Your task to perform on an android device: Open the web browser Image 0: 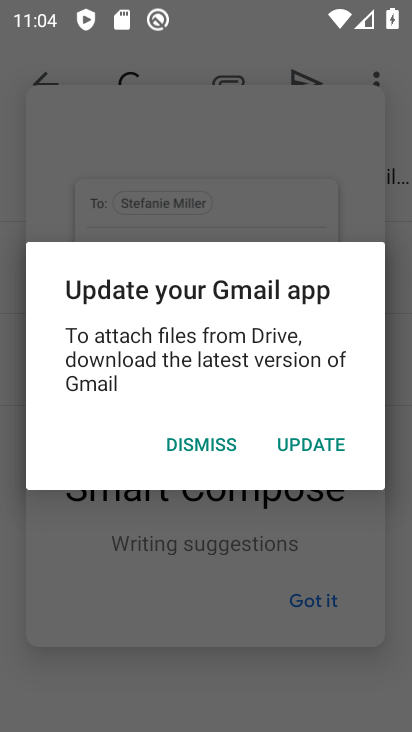
Step 0: press home button
Your task to perform on an android device: Open the web browser Image 1: 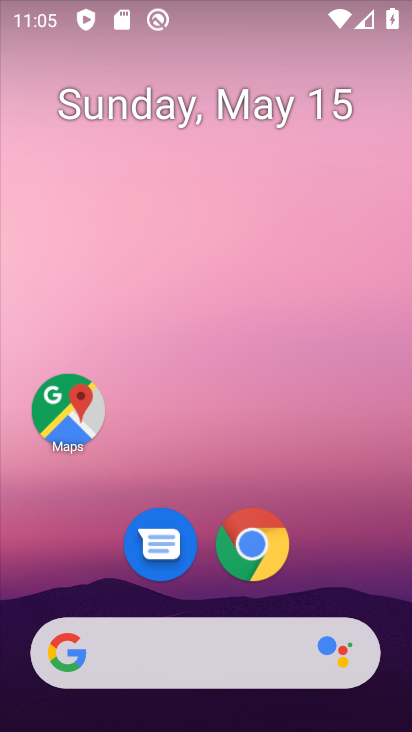
Step 1: click (252, 547)
Your task to perform on an android device: Open the web browser Image 2: 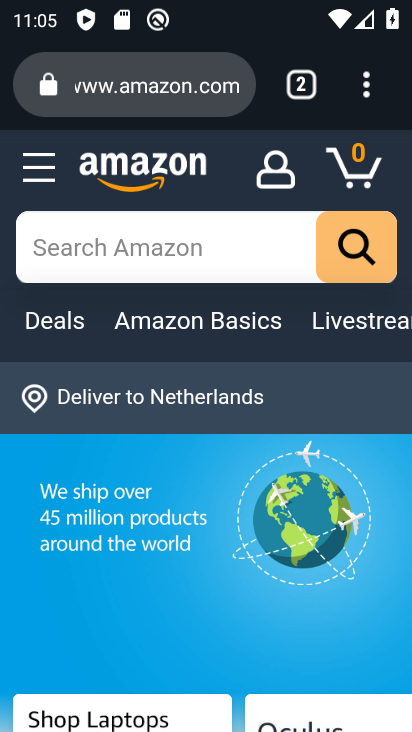
Step 2: task complete